Your task to perform on an android device: Open Amazon Image 0: 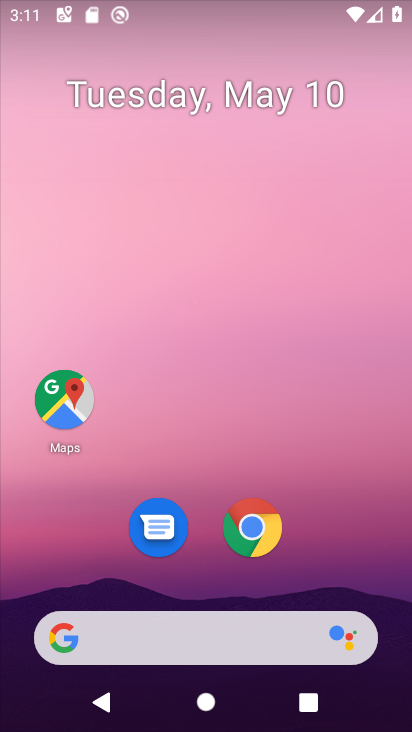
Step 0: click (254, 528)
Your task to perform on an android device: Open Amazon Image 1: 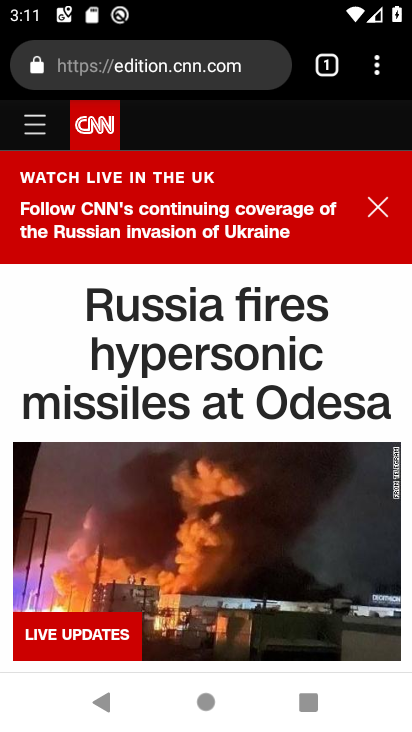
Step 1: click (264, 72)
Your task to perform on an android device: Open Amazon Image 2: 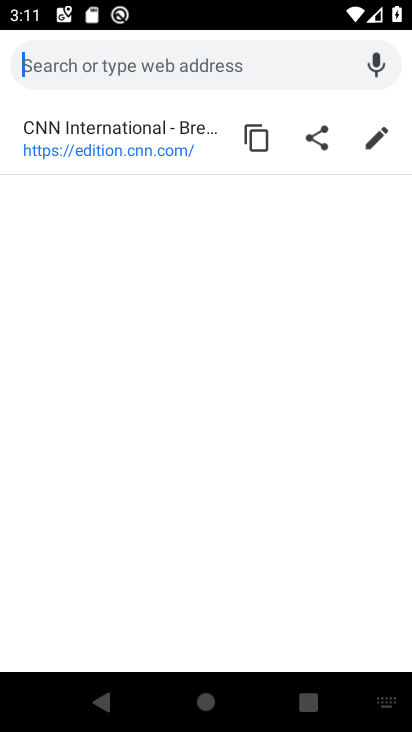
Step 2: type "Amazon"
Your task to perform on an android device: Open Amazon Image 3: 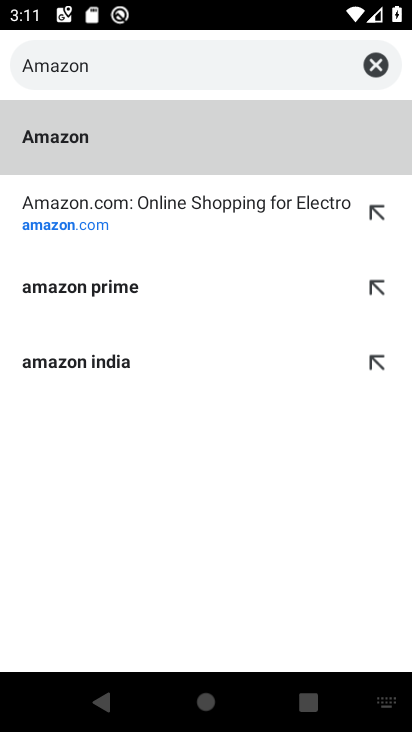
Step 3: click (40, 134)
Your task to perform on an android device: Open Amazon Image 4: 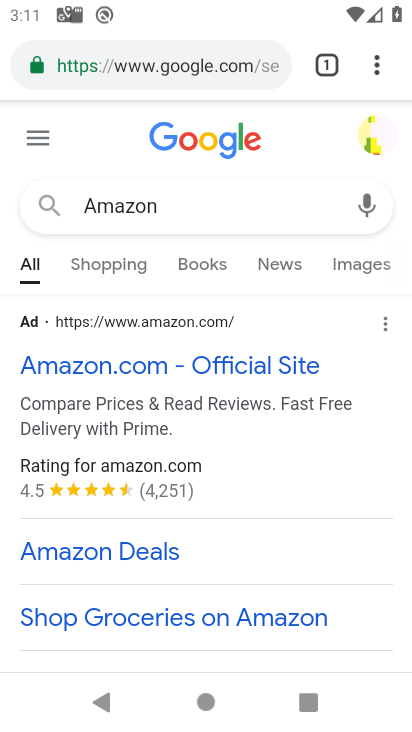
Step 4: task complete